Your task to perform on an android device: change text size in settings app Image 0: 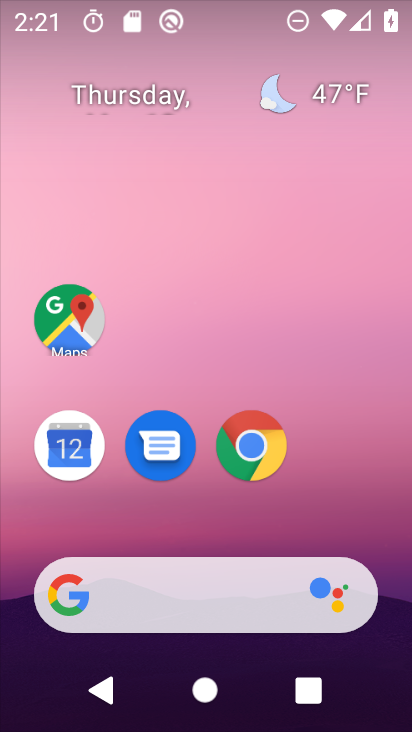
Step 0: drag from (207, 551) to (239, 223)
Your task to perform on an android device: change text size in settings app Image 1: 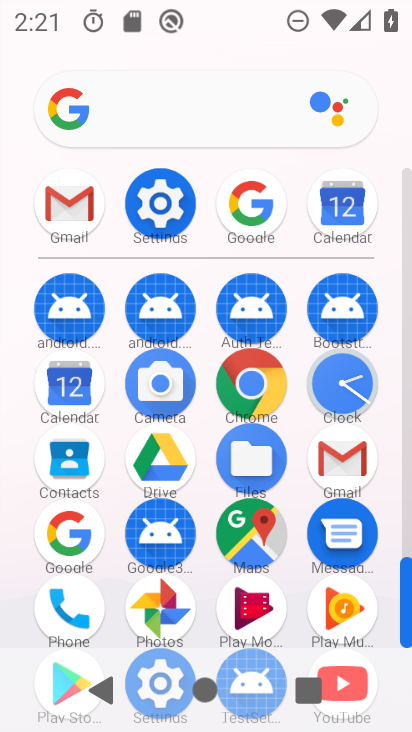
Step 1: click (148, 211)
Your task to perform on an android device: change text size in settings app Image 2: 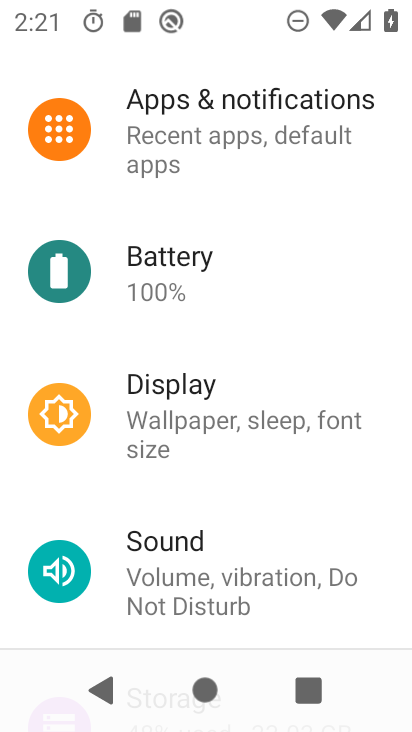
Step 2: drag from (138, 551) to (218, 283)
Your task to perform on an android device: change text size in settings app Image 3: 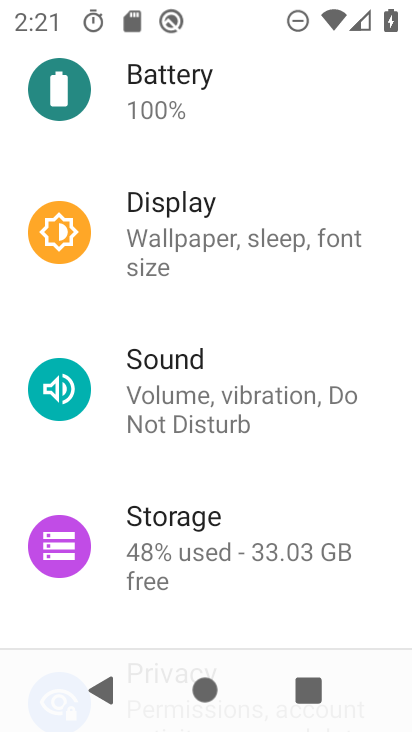
Step 3: click (220, 266)
Your task to perform on an android device: change text size in settings app Image 4: 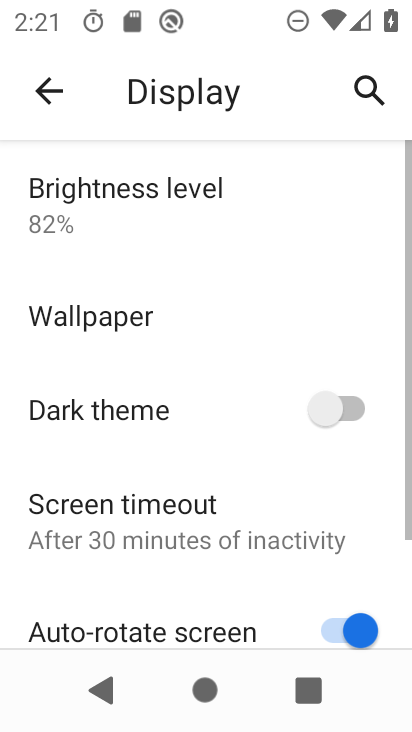
Step 4: drag from (244, 503) to (251, 227)
Your task to perform on an android device: change text size in settings app Image 5: 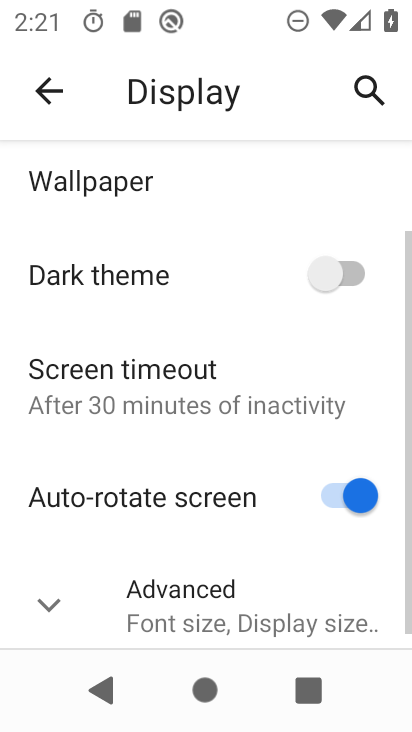
Step 5: drag from (244, 507) to (267, 297)
Your task to perform on an android device: change text size in settings app Image 6: 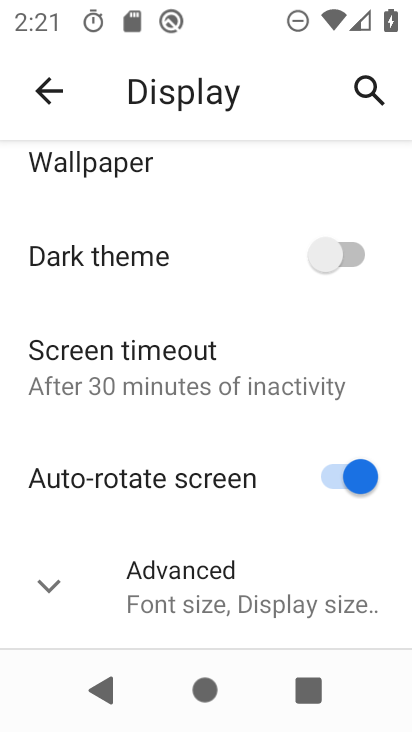
Step 6: click (219, 557)
Your task to perform on an android device: change text size in settings app Image 7: 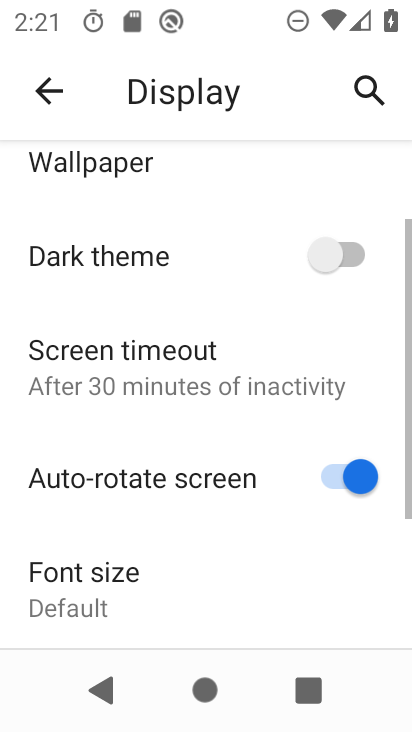
Step 7: drag from (222, 556) to (256, 314)
Your task to perform on an android device: change text size in settings app Image 8: 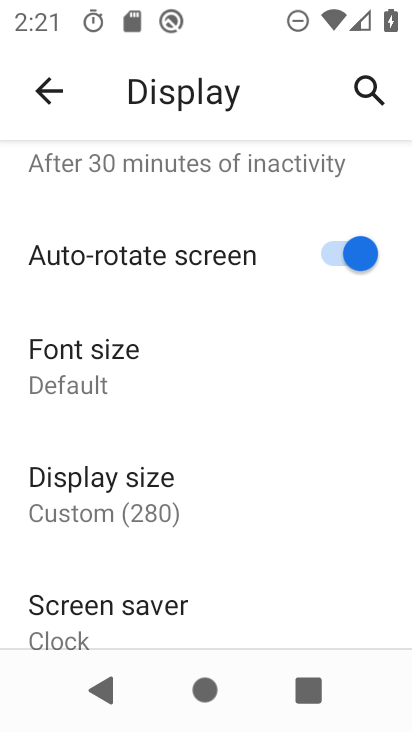
Step 8: drag from (255, 521) to (267, 383)
Your task to perform on an android device: change text size in settings app Image 9: 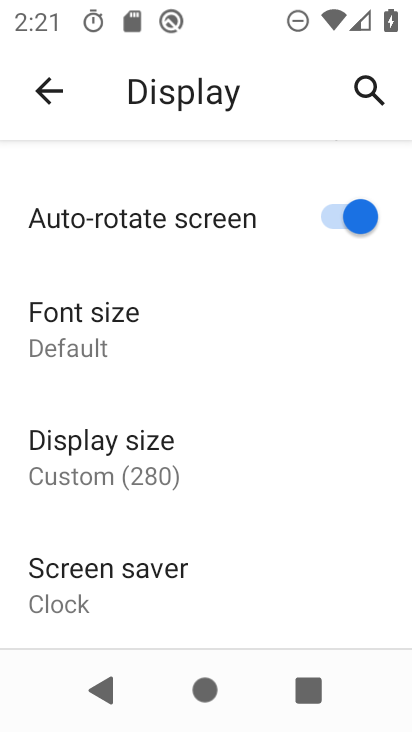
Step 9: click (158, 337)
Your task to perform on an android device: change text size in settings app Image 10: 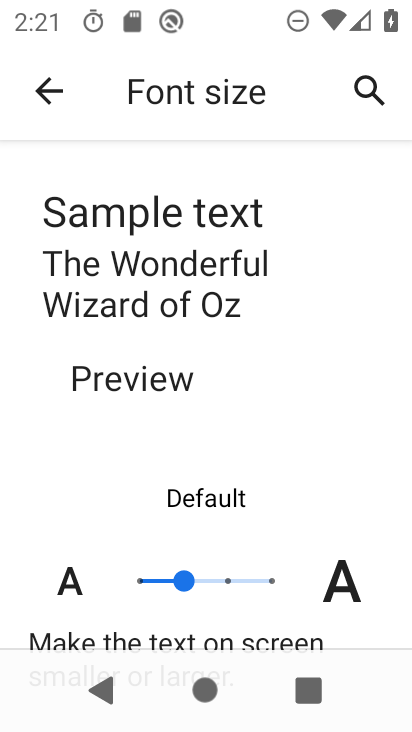
Step 10: click (133, 579)
Your task to perform on an android device: change text size in settings app Image 11: 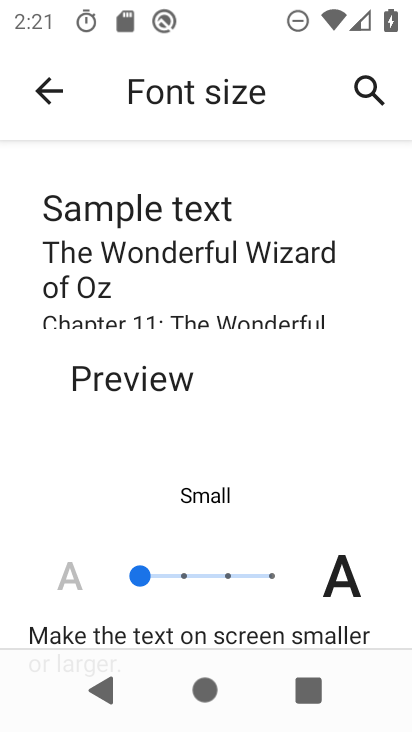
Step 11: task complete